Your task to perform on an android device: Search for the best rated 4k tvs on Walmart. Image 0: 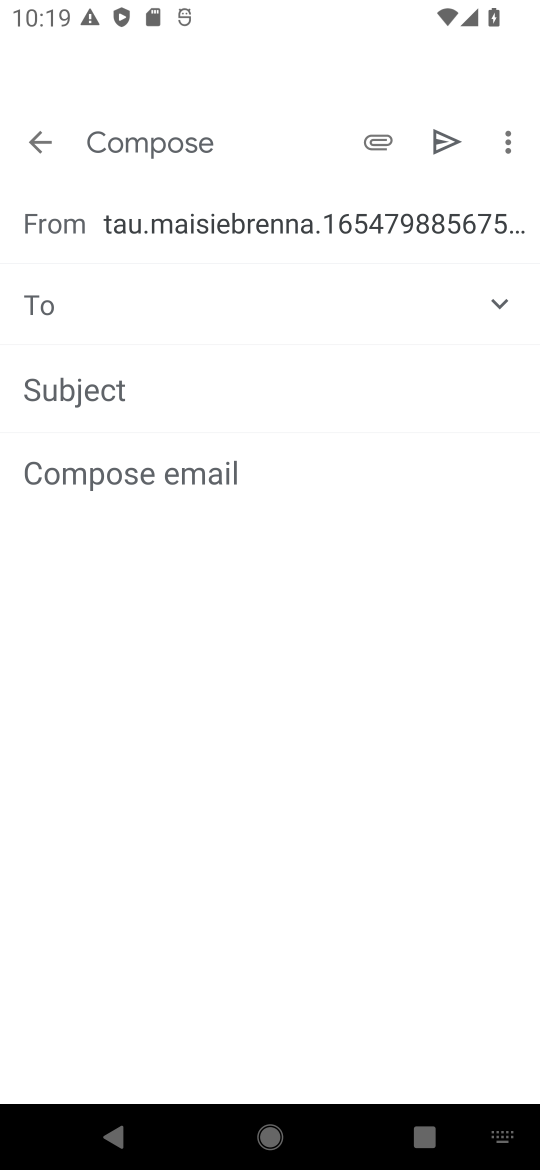
Step 0: press home button
Your task to perform on an android device: Search for the best rated 4k tvs on Walmart. Image 1: 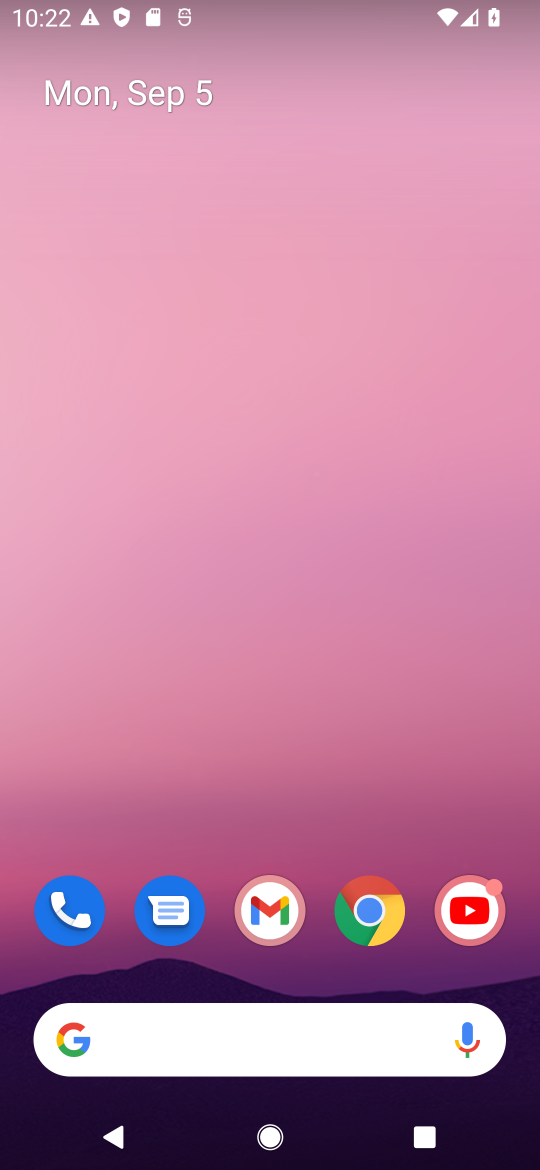
Step 1: click (395, 914)
Your task to perform on an android device: Search for the best rated 4k tvs on Walmart. Image 2: 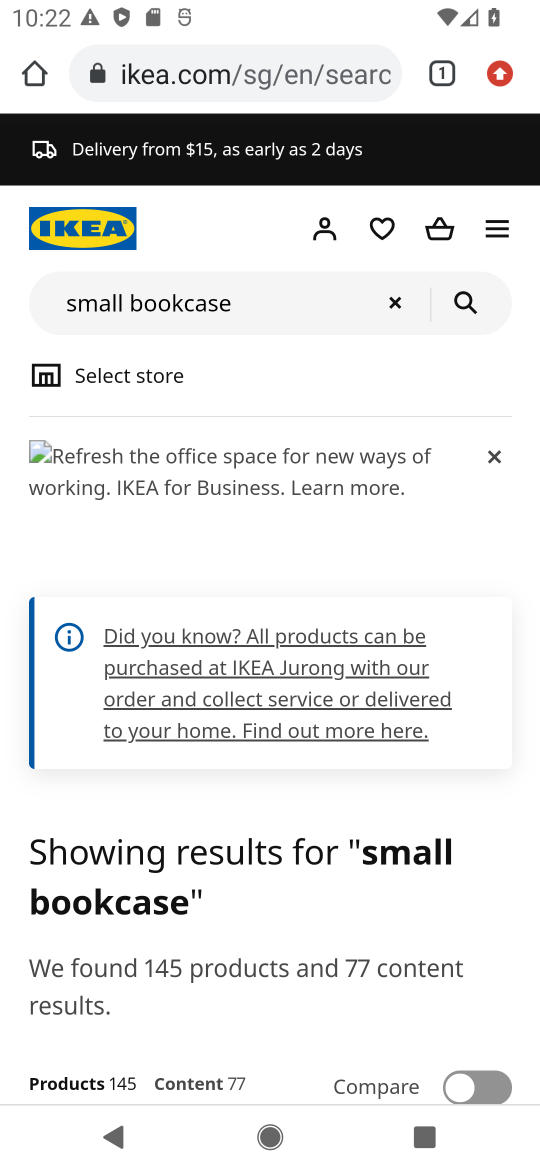
Step 2: click (205, 109)
Your task to perform on an android device: Search for the best rated 4k tvs on Walmart. Image 3: 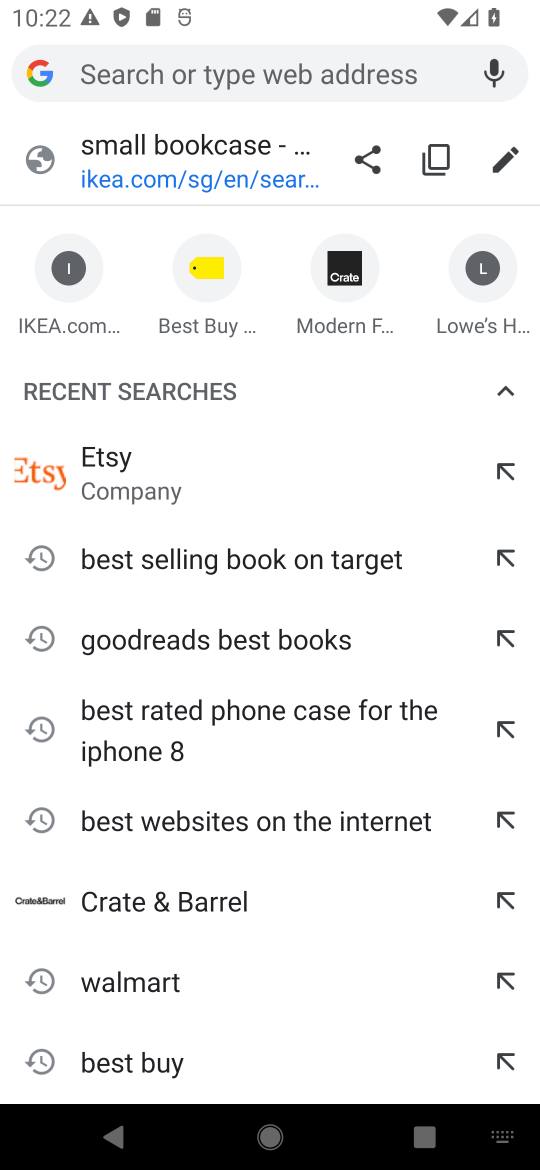
Step 3: type "walmart"
Your task to perform on an android device: Search for the best rated 4k tvs on Walmart. Image 4: 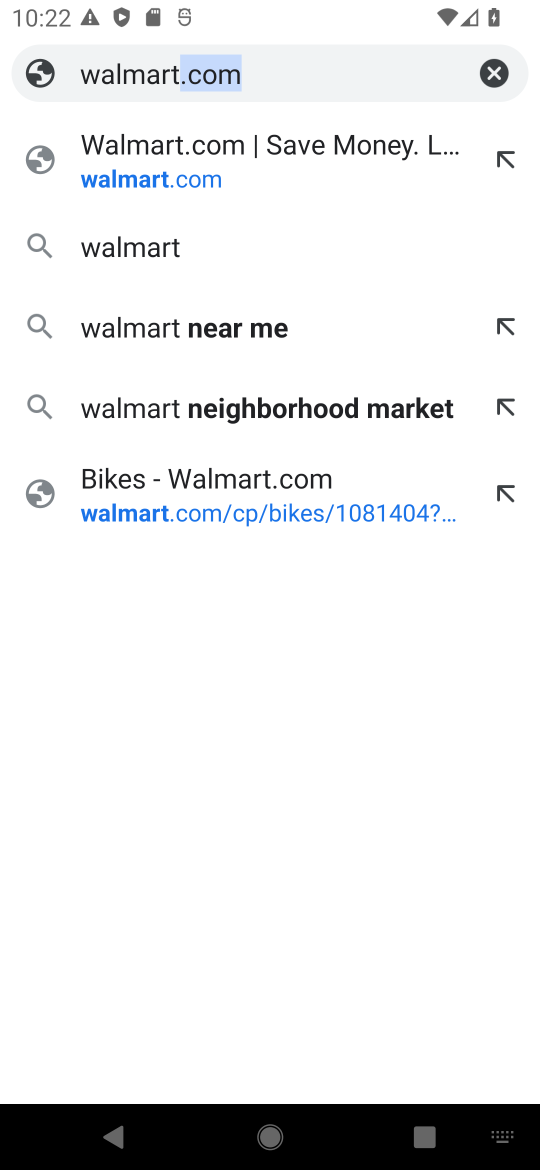
Step 4: click (264, 131)
Your task to perform on an android device: Search for the best rated 4k tvs on Walmart. Image 5: 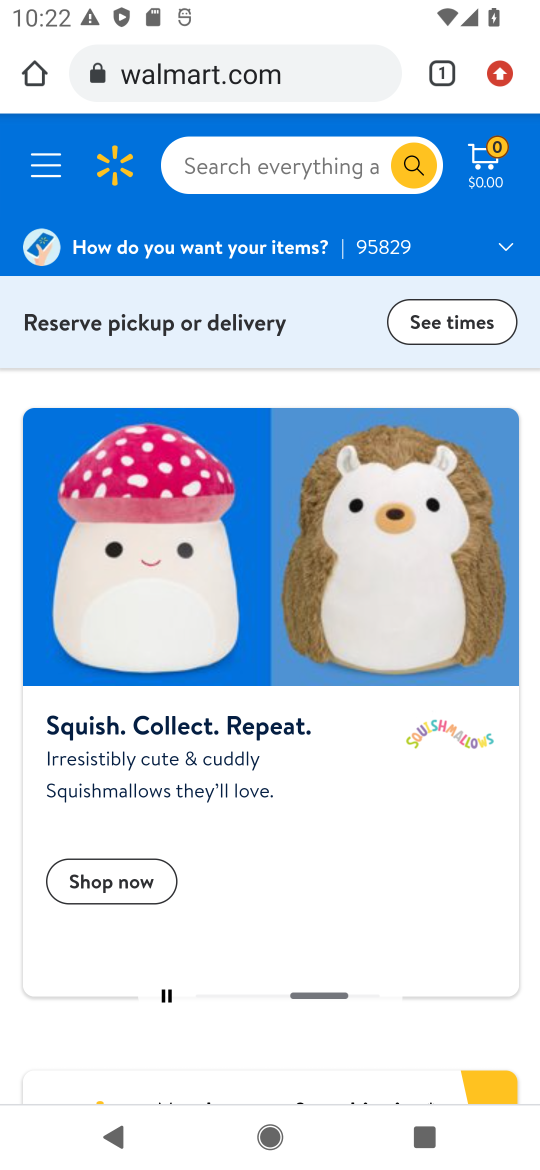
Step 5: click (350, 175)
Your task to perform on an android device: Search for the best rated 4k tvs on Walmart. Image 6: 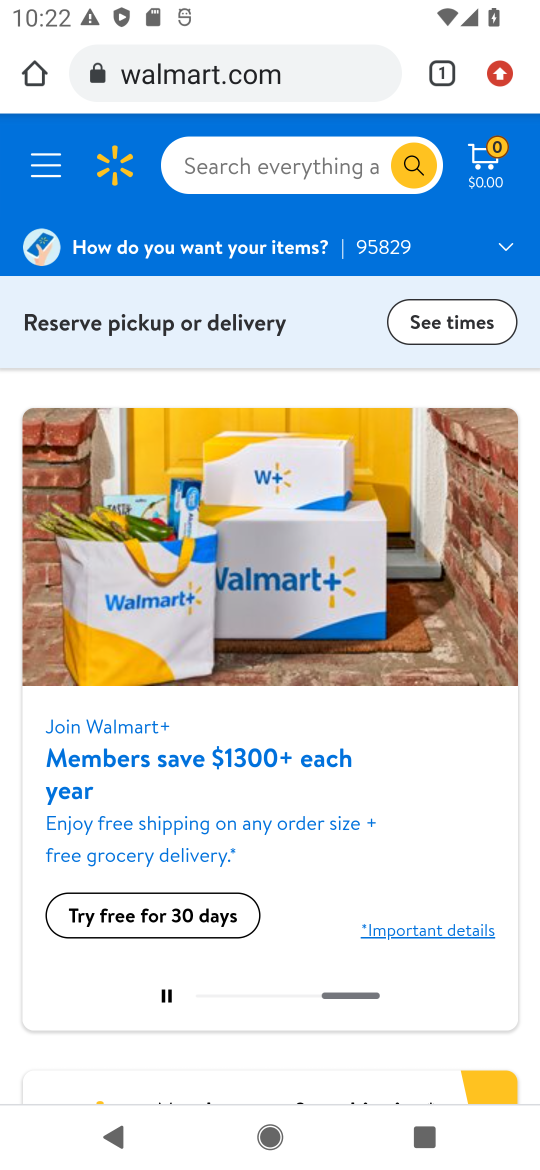
Step 6: click (230, 151)
Your task to perform on an android device: Search for the best rated 4k tvs on Walmart. Image 7: 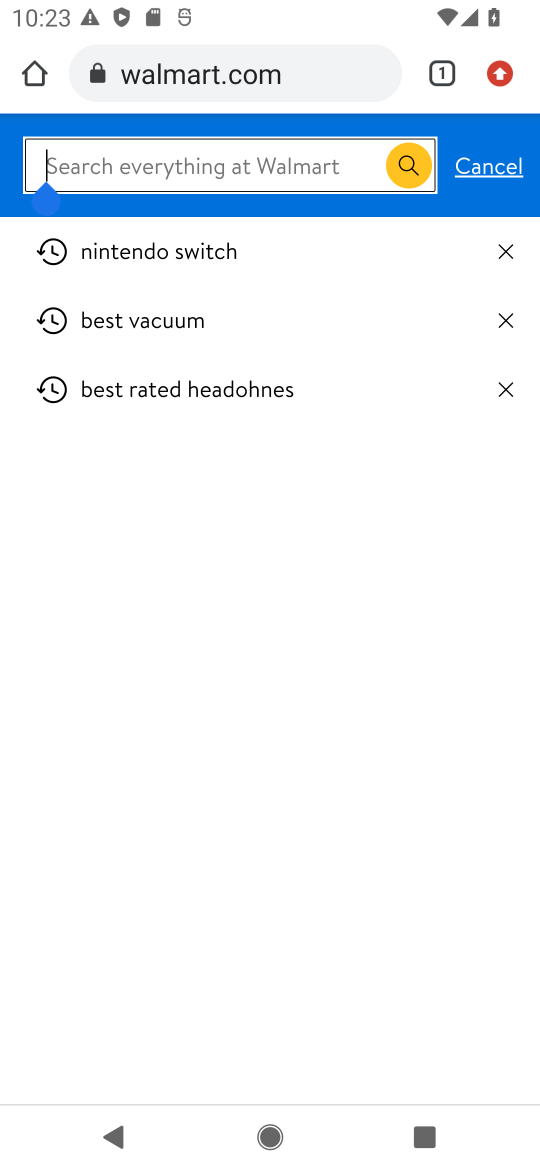
Step 7: type "best rated 4k tvs on walmart"
Your task to perform on an android device: Search for the best rated 4k tvs on Walmart. Image 8: 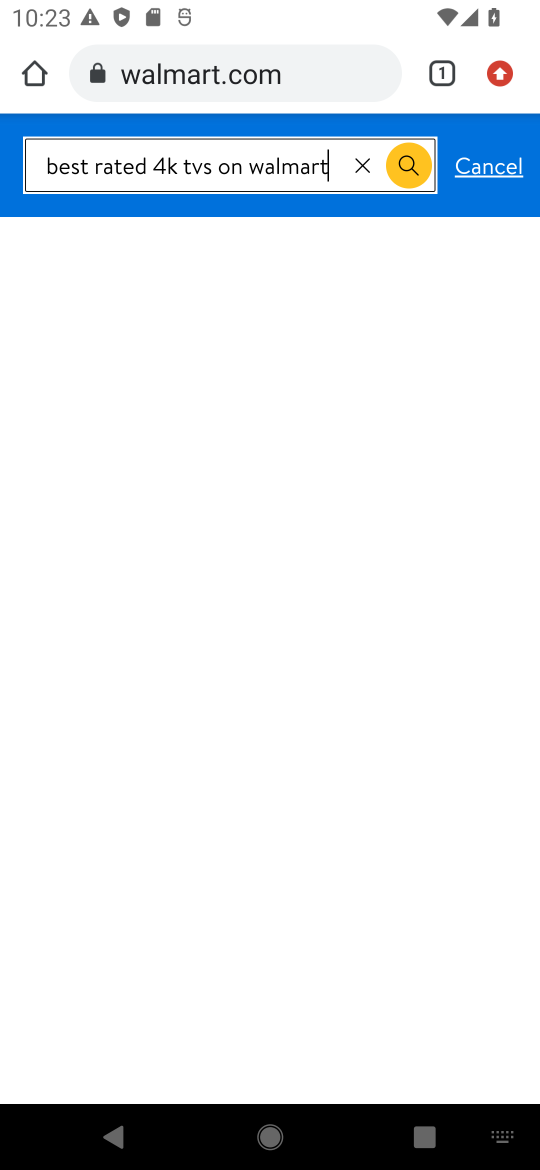
Step 8: press enter
Your task to perform on an android device: Search for the best rated 4k tvs on Walmart. Image 9: 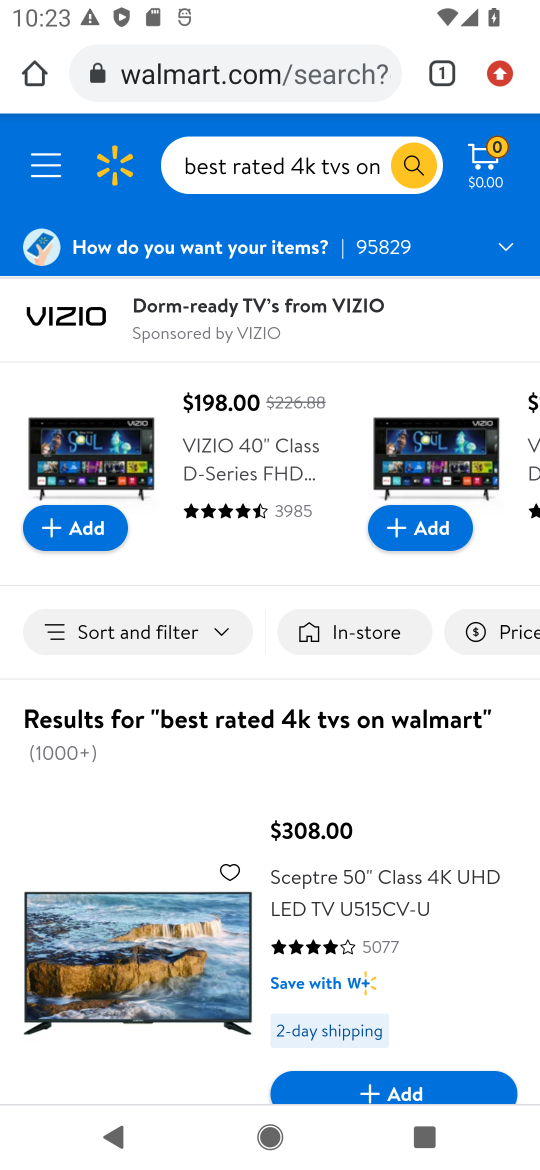
Step 9: task complete